Your task to perform on an android device: all mails in gmail Image 0: 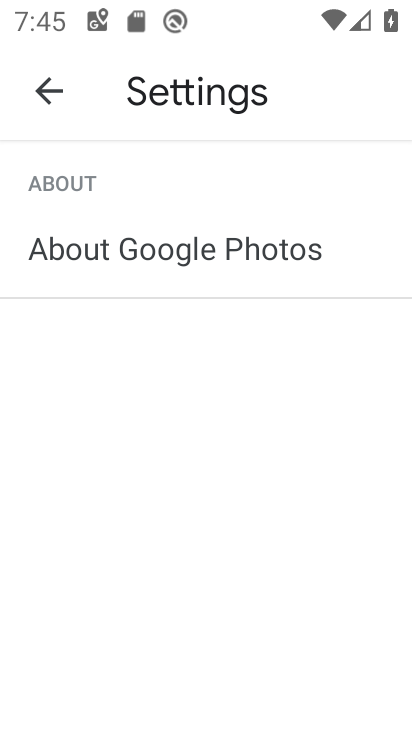
Step 0: press back button
Your task to perform on an android device: all mails in gmail Image 1: 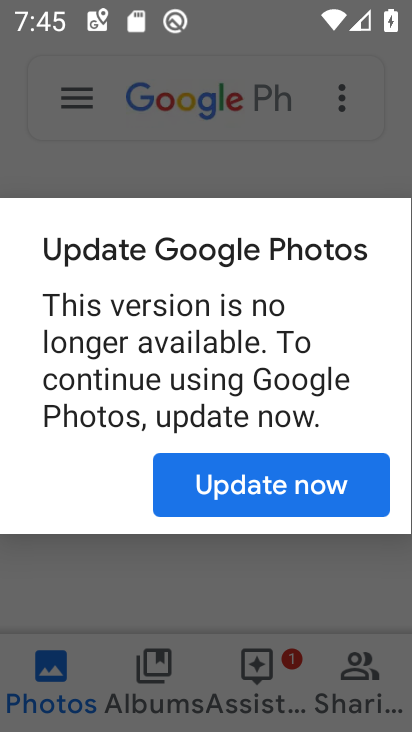
Step 1: press back button
Your task to perform on an android device: all mails in gmail Image 2: 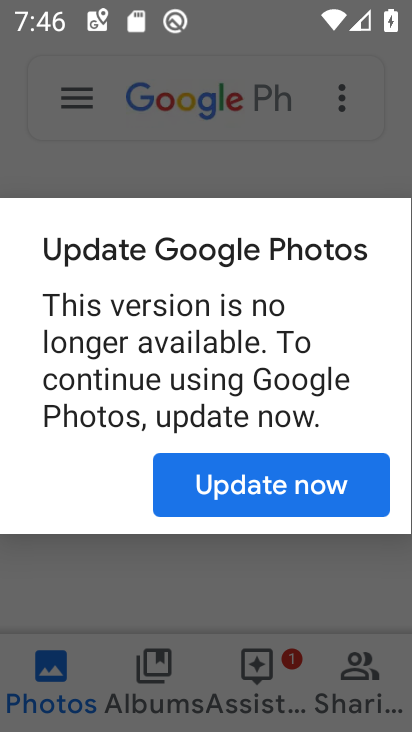
Step 2: press home button
Your task to perform on an android device: all mails in gmail Image 3: 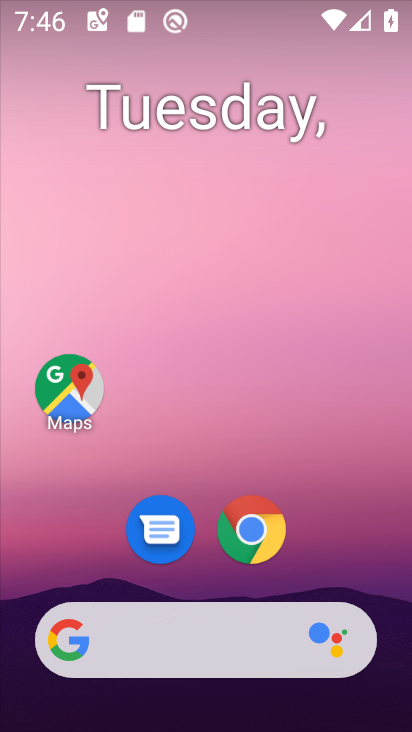
Step 3: drag from (218, 437) to (269, 9)
Your task to perform on an android device: all mails in gmail Image 4: 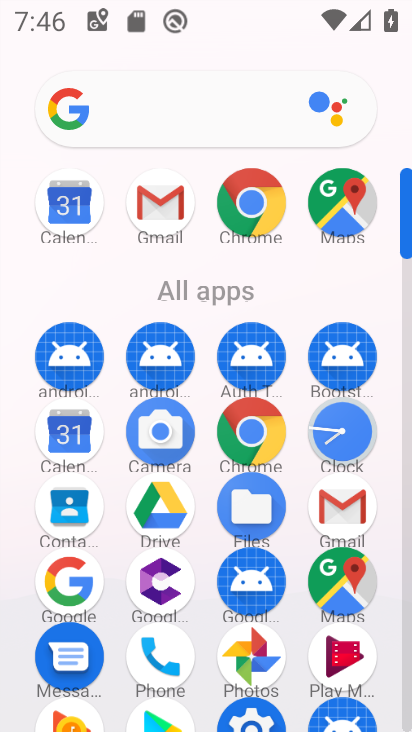
Step 4: click (171, 188)
Your task to perform on an android device: all mails in gmail Image 5: 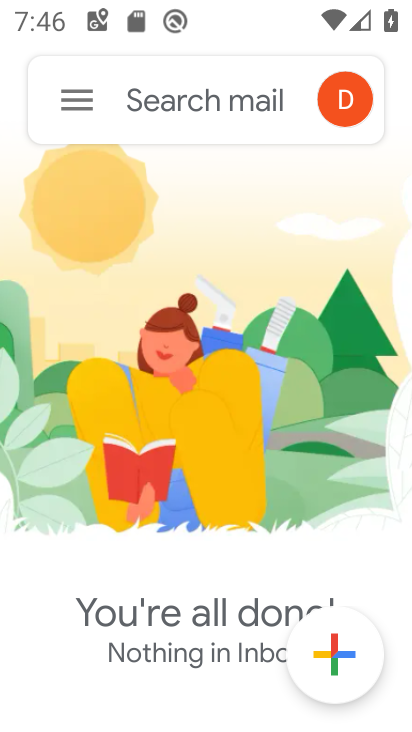
Step 5: click (71, 88)
Your task to perform on an android device: all mails in gmail Image 6: 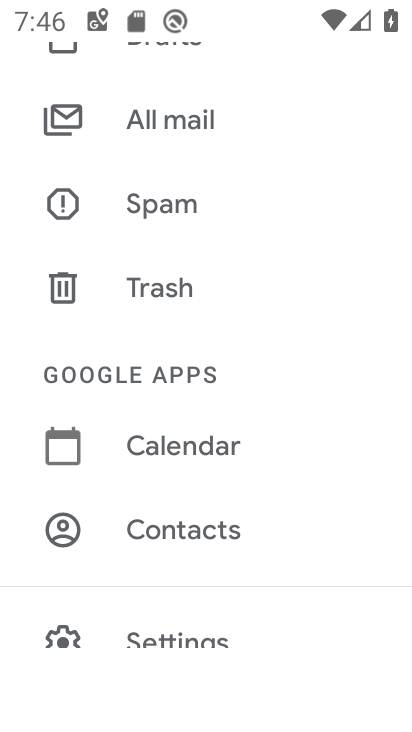
Step 6: click (159, 120)
Your task to perform on an android device: all mails in gmail Image 7: 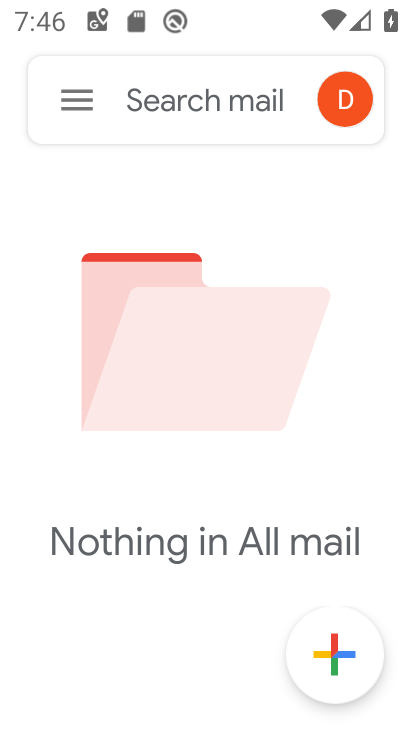
Step 7: task complete